Your task to perform on an android device: Open the stopwatch Image 0: 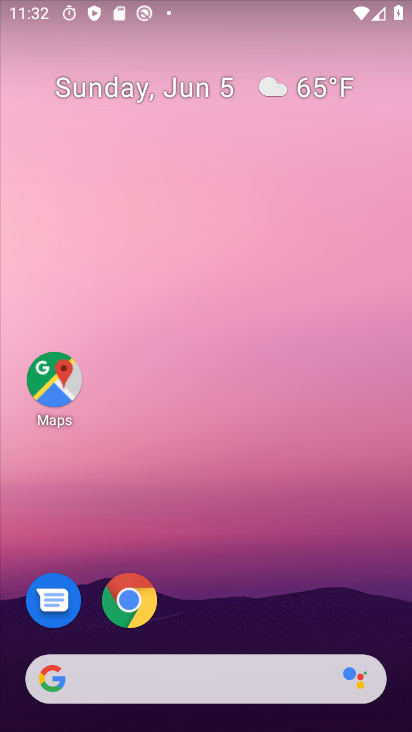
Step 0: drag from (211, 514) to (174, 156)
Your task to perform on an android device: Open the stopwatch Image 1: 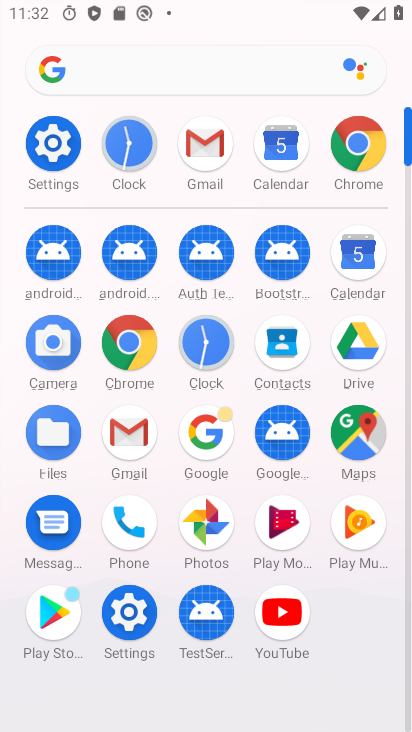
Step 1: click (197, 343)
Your task to perform on an android device: Open the stopwatch Image 2: 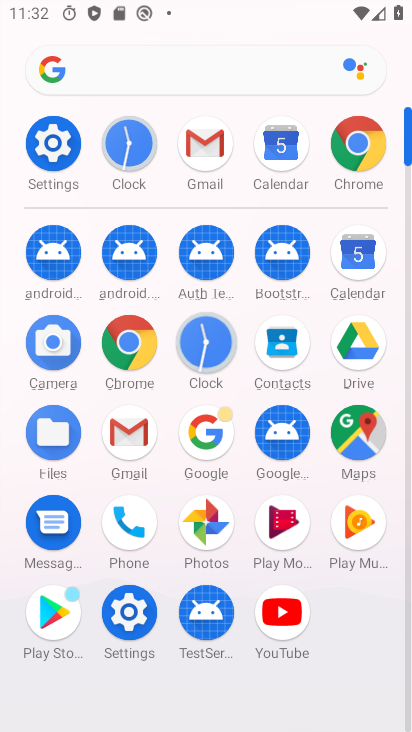
Step 2: click (193, 342)
Your task to perform on an android device: Open the stopwatch Image 3: 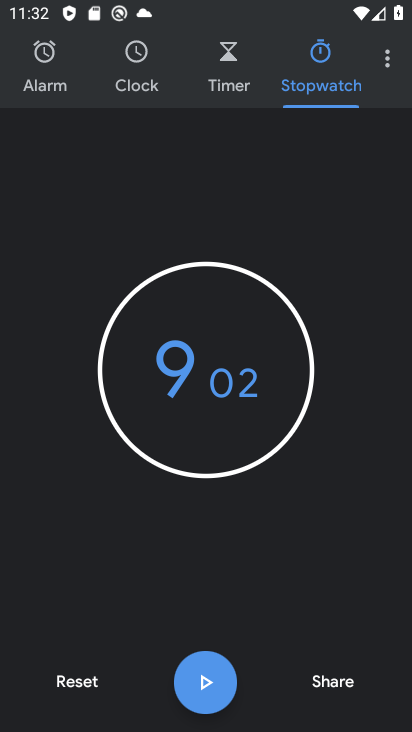
Step 3: task complete